Your task to perform on an android device: Go to ESPN.com Image 0: 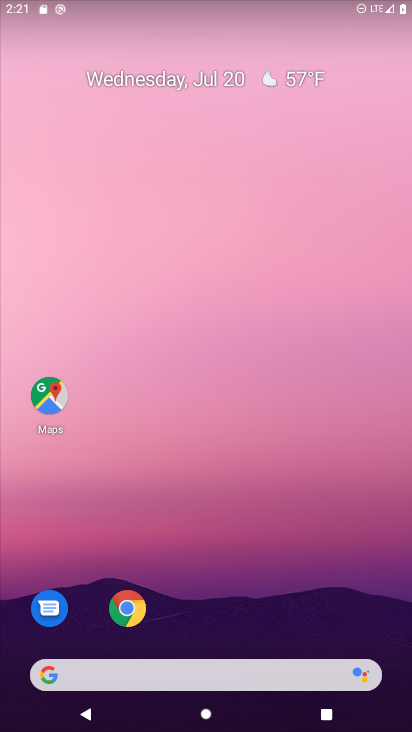
Step 0: drag from (241, 719) to (240, 622)
Your task to perform on an android device: Go to ESPN.com Image 1: 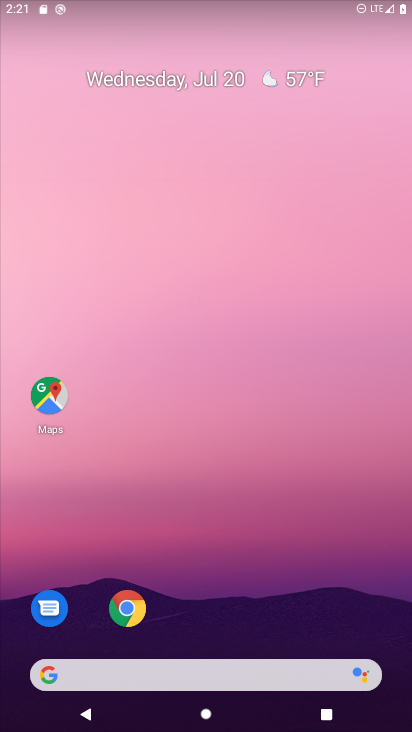
Step 1: drag from (239, 722) to (228, 208)
Your task to perform on an android device: Go to ESPN.com Image 2: 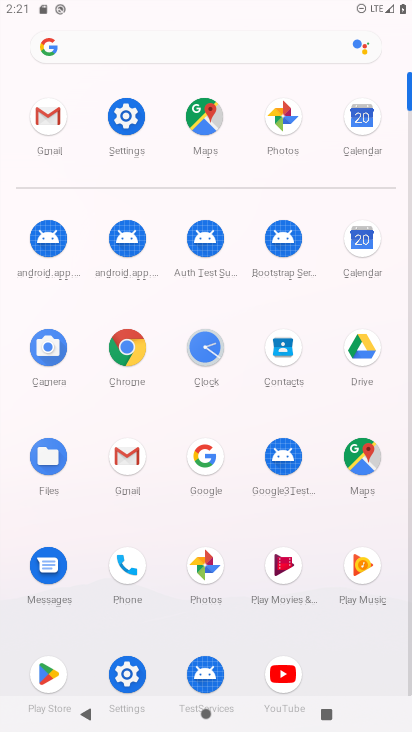
Step 2: click (125, 349)
Your task to perform on an android device: Go to ESPN.com Image 3: 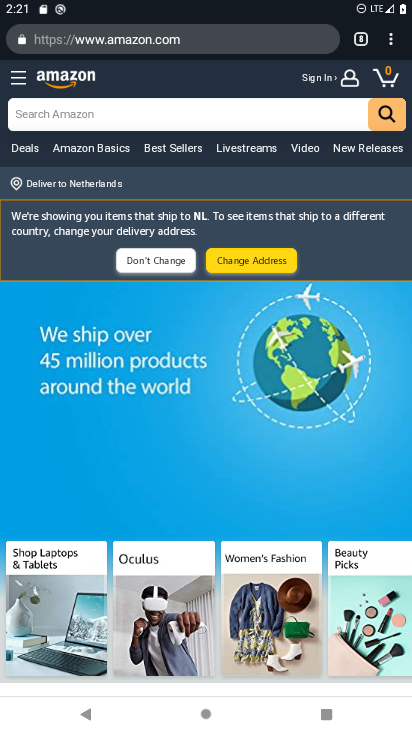
Step 3: click (392, 46)
Your task to perform on an android device: Go to ESPN.com Image 4: 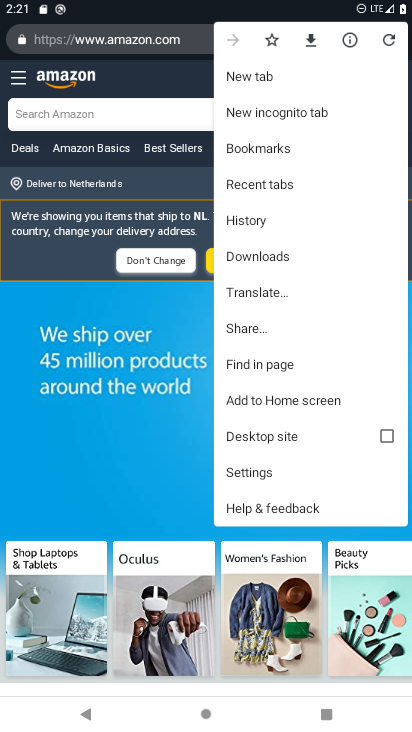
Step 4: click (255, 75)
Your task to perform on an android device: Go to ESPN.com Image 5: 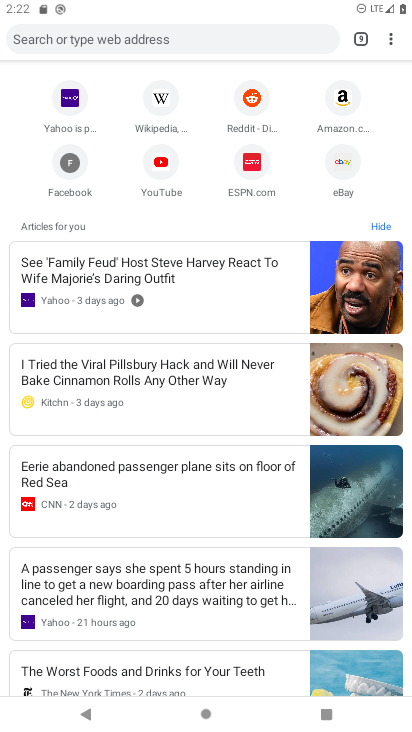
Step 5: click (260, 166)
Your task to perform on an android device: Go to ESPN.com Image 6: 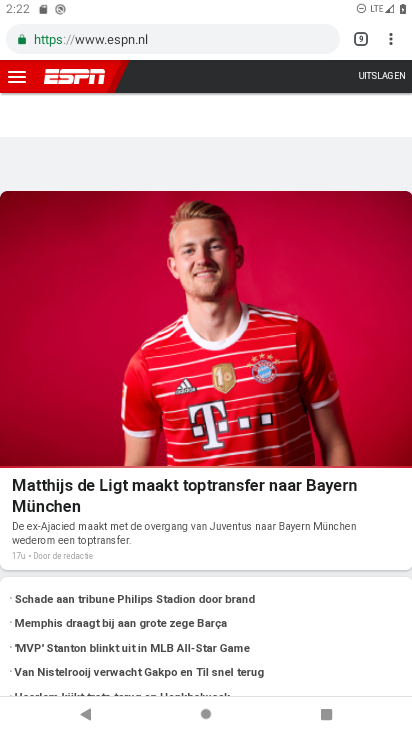
Step 6: task complete